Your task to perform on an android device: Open the stopwatch Image 0: 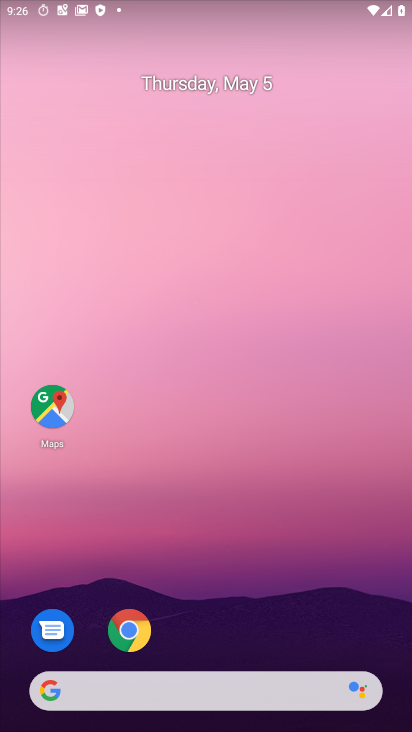
Step 0: drag from (171, 512) to (55, 147)
Your task to perform on an android device: Open the stopwatch Image 1: 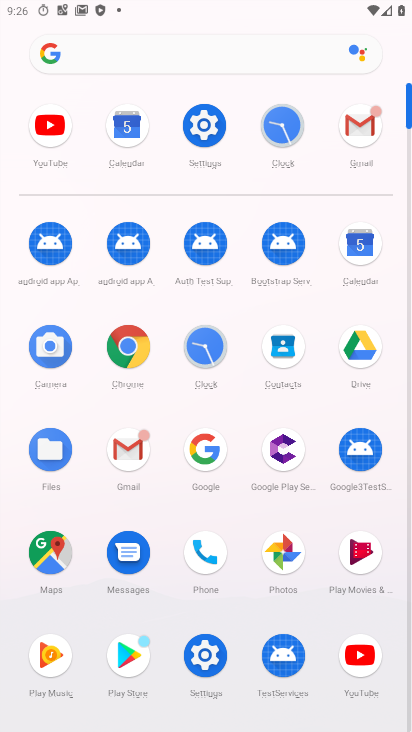
Step 1: click (286, 126)
Your task to perform on an android device: Open the stopwatch Image 2: 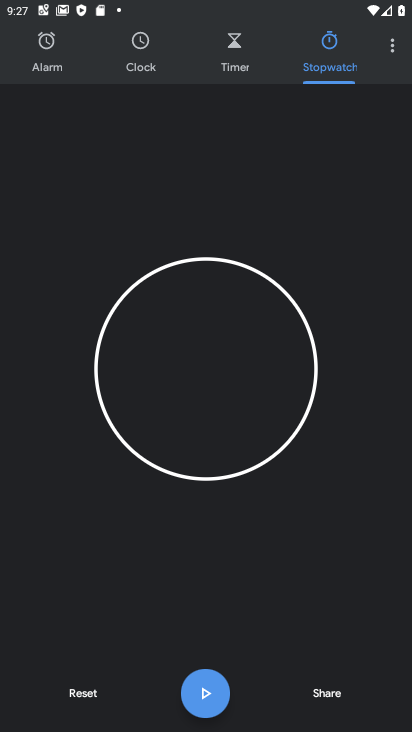
Step 2: task complete